Your task to perform on an android device: Do I have any events this weekend? Image 0: 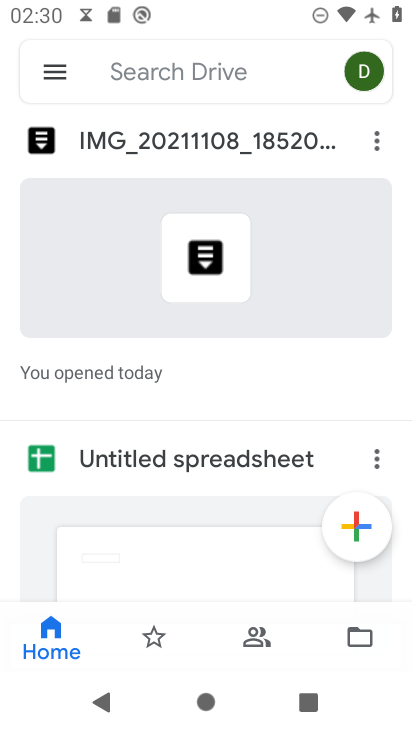
Step 0: press home button
Your task to perform on an android device: Do I have any events this weekend? Image 1: 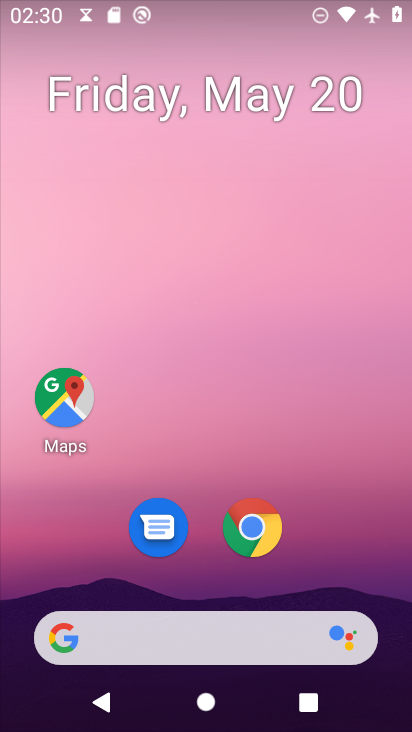
Step 1: drag from (193, 642) to (301, 87)
Your task to perform on an android device: Do I have any events this weekend? Image 2: 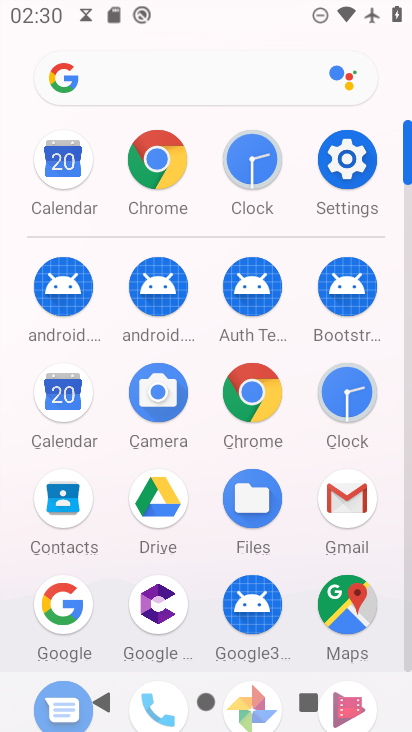
Step 2: click (70, 397)
Your task to perform on an android device: Do I have any events this weekend? Image 3: 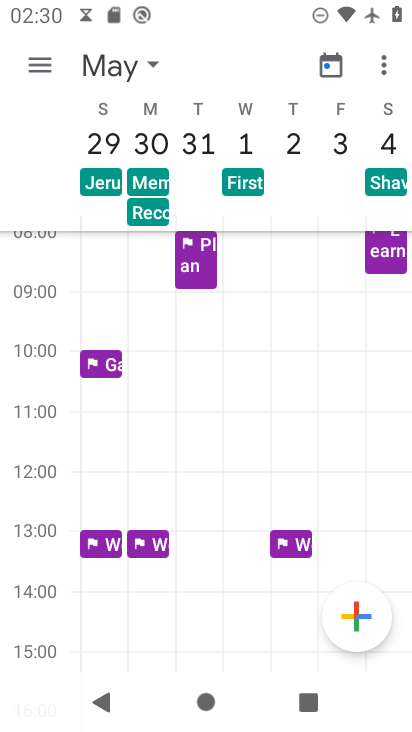
Step 3: click (116, 68)
Your task to perform on an android device: Do I have any events this weekend? Image 4: 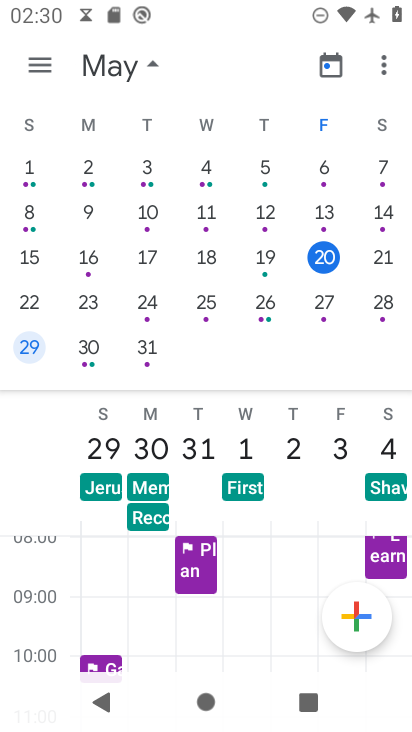
Step 4: click (383, 252)
Your task to perform on an android device: Do I have any events this weekend? Image 5: 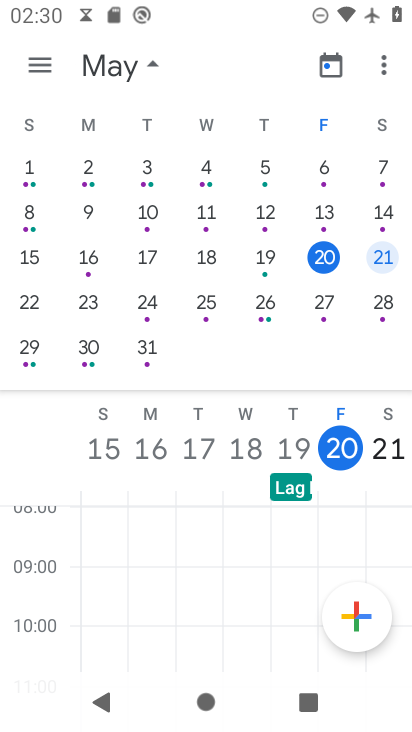
Step 5: click (39, 65)
Your task to perform on an android device: Do I have any events this weekend? Image 6: 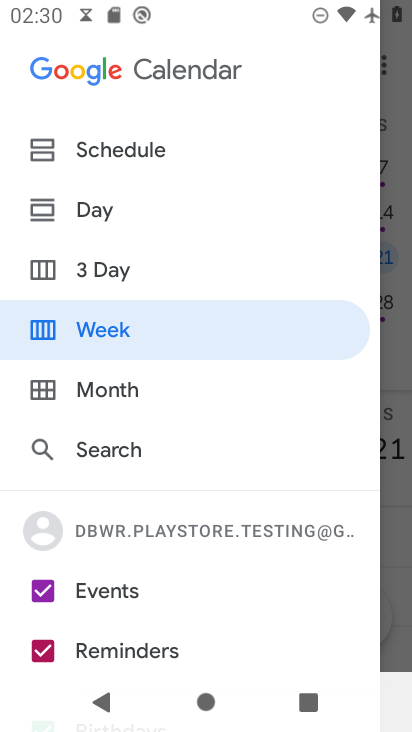
Step 6: click (103, 209)
Your task to perform on an android device: Do I have any events this weekend? Image 7: 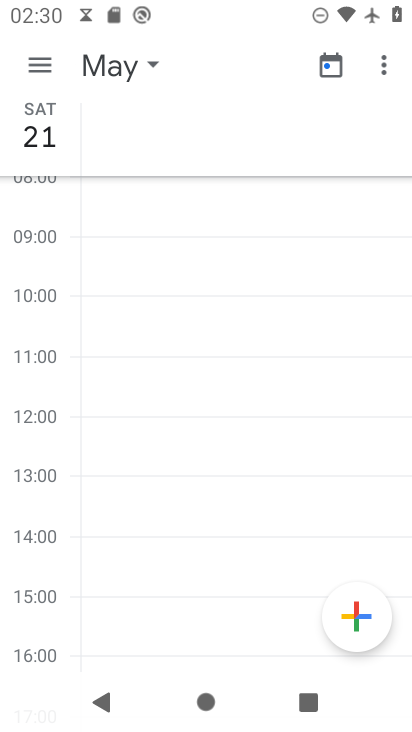
Step 7: click (50, 62)
Your task to perform on an android device: Do I have any events this weekend? Image 8: 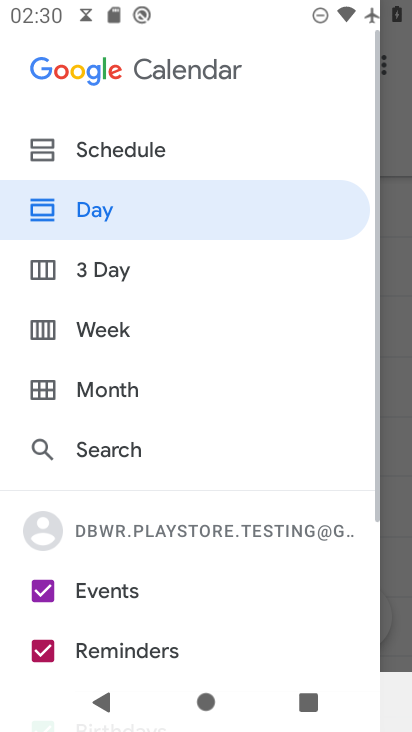
Step 8: click (84, 149)
Your task to perform on an android device: Do I have any events this weekend? Image 9: 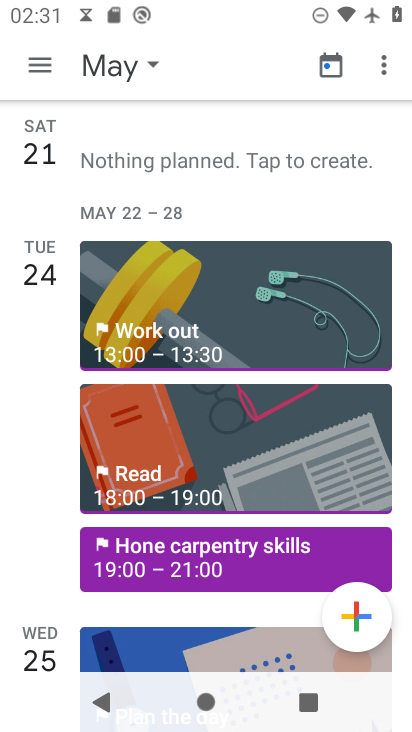
Step 9: task complete